Your task to perform on an android device: open app "Venmo" (install if not already installed) and enter user name: "bleedings@gmail.com" and password: "copied" Image 0: 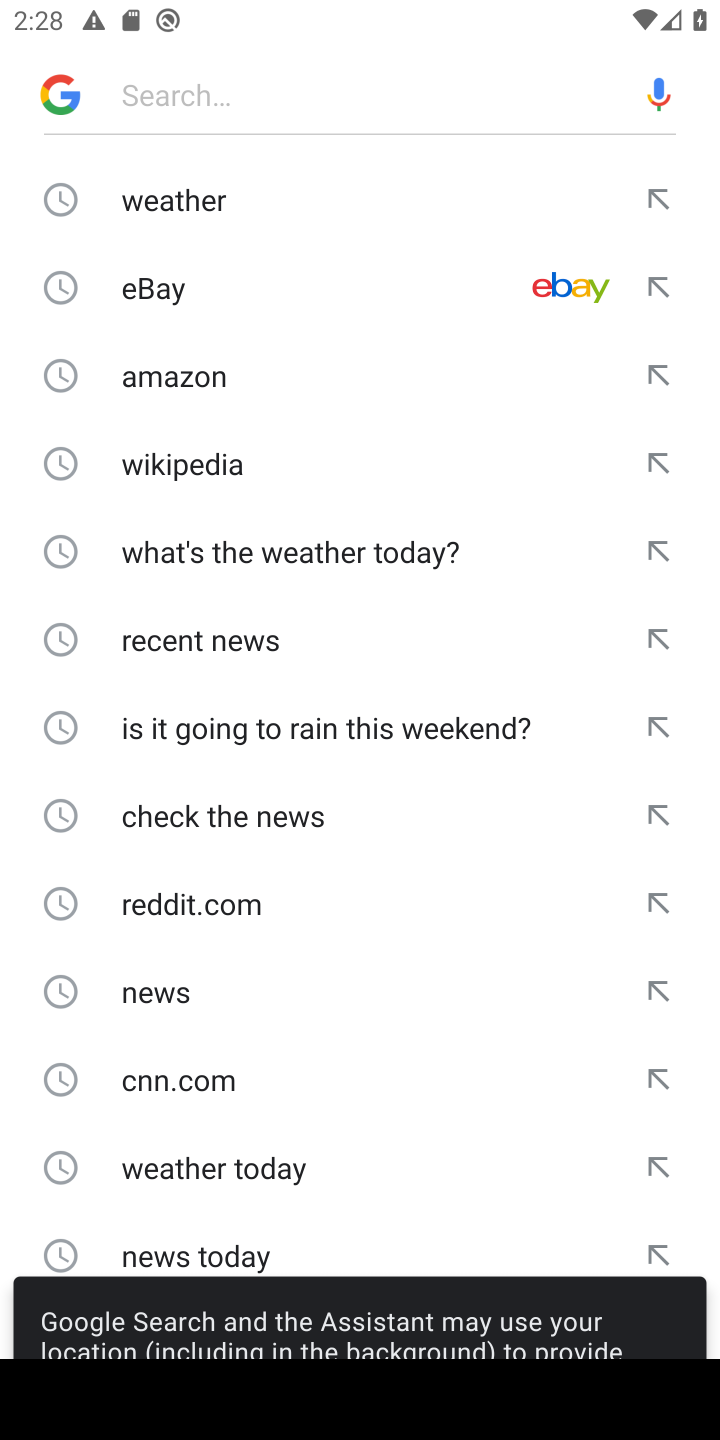
Step 0: press home button
Your task to perform on an android device: open app "Venmo" (install if not already installed) and enter user name: "bleedings@gmail.com" and password: "copied" Image 1: 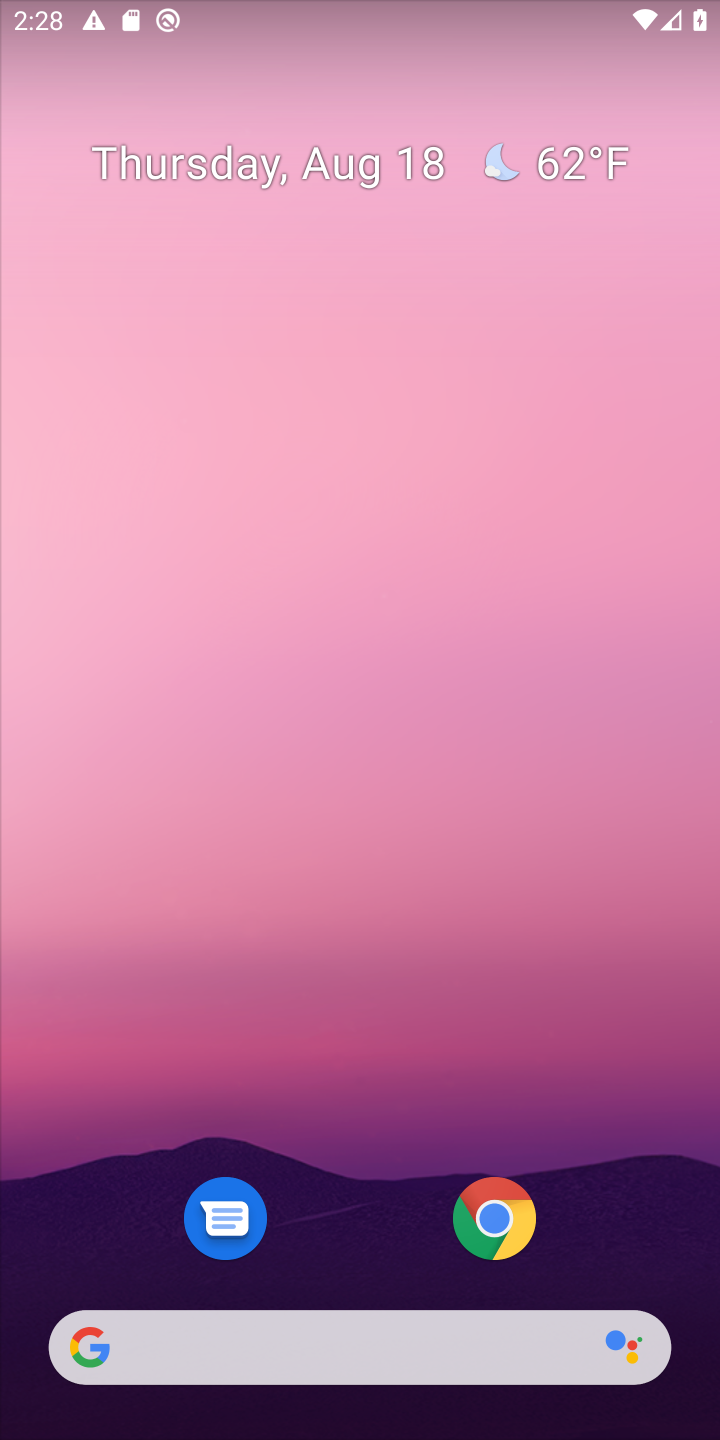
Step 1: drag from (366, 1098) to (366, 188)
Your task to perform on an android device: open app "Venmo" (install if not already installed) and enter user name: "bleedings@gmail.com" and password: "copied" Image 2: 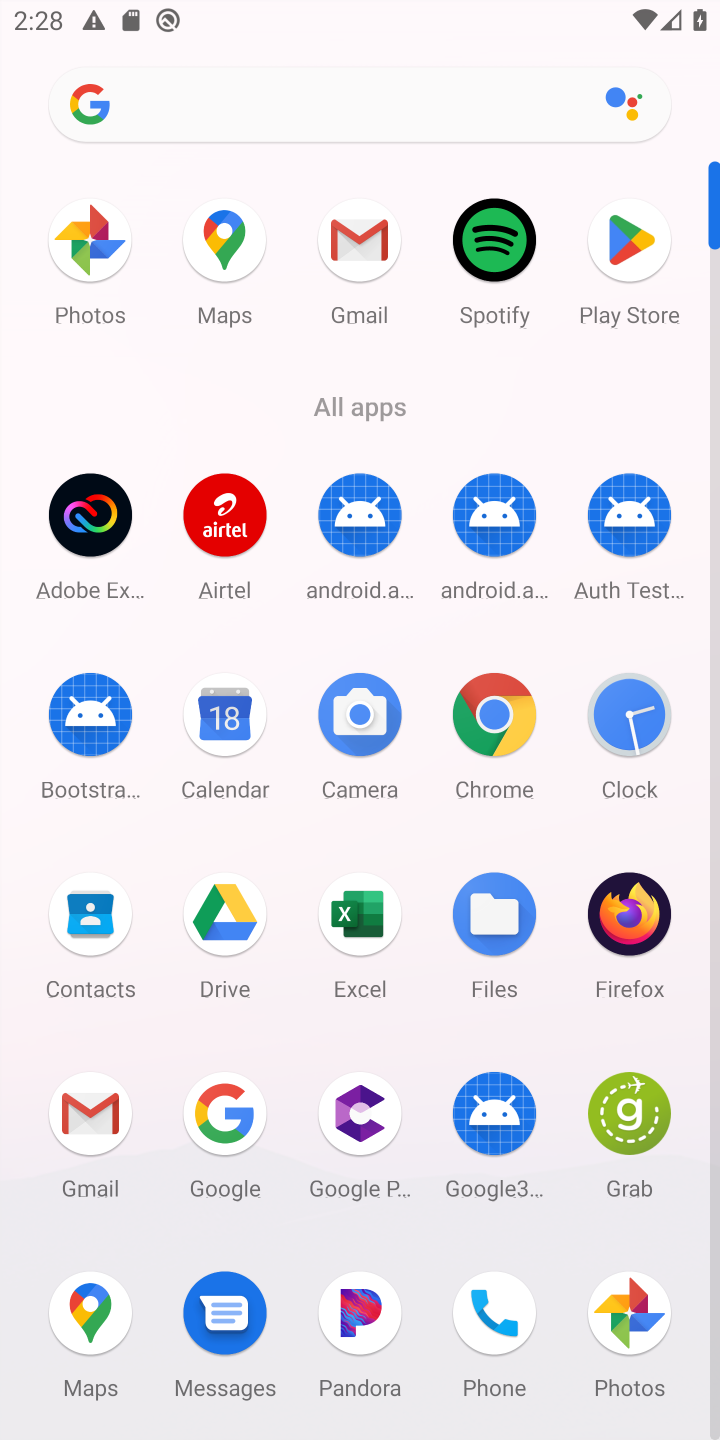
Step 2: click (631, 237)
Your task to perform on an android device: open app "Venmo" (install if not already installed) and enter user name: "bleedings@gmail.com" and password: "copied" Image 3: 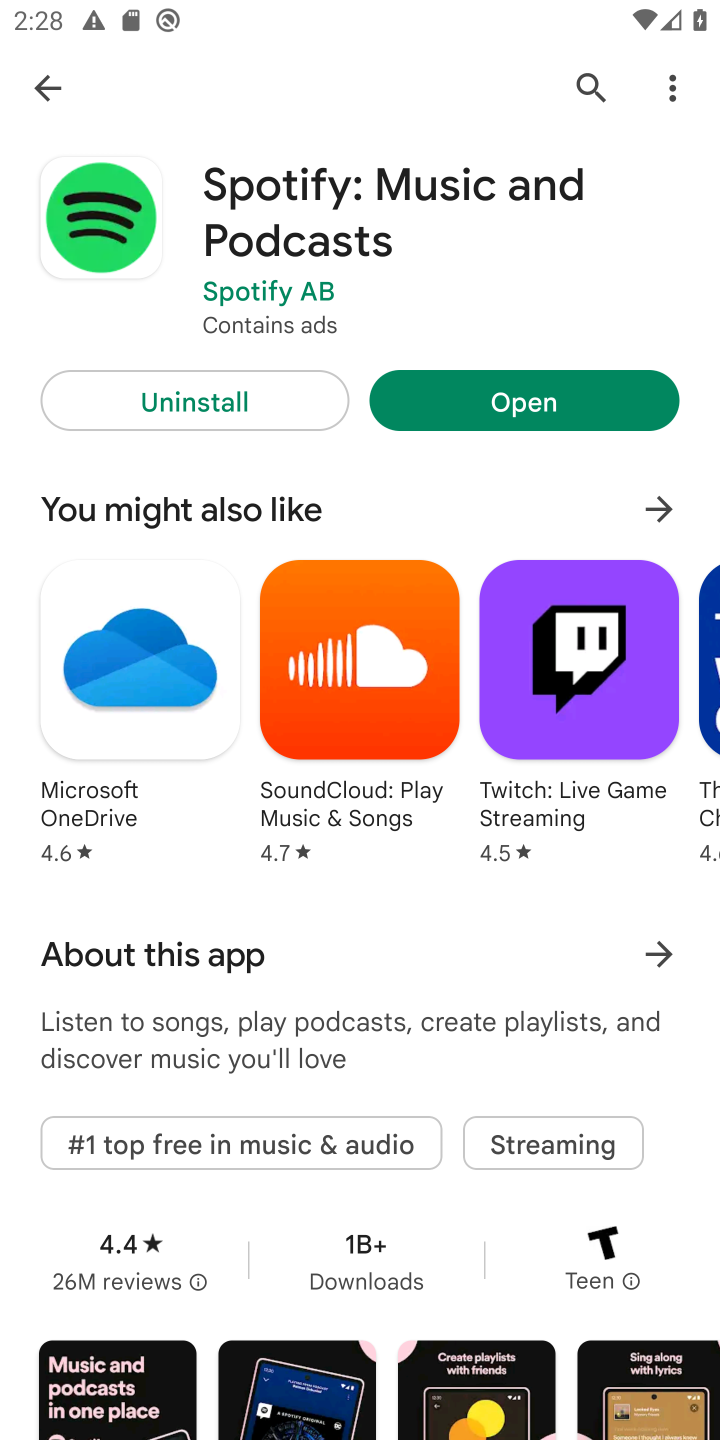
Step 3: click (606, 60)
Your task to perform on an android device: open app "Venmo" (install if not already installed) and enter user name: "bleedings@gmail.com" and password: "copied" Image 4: 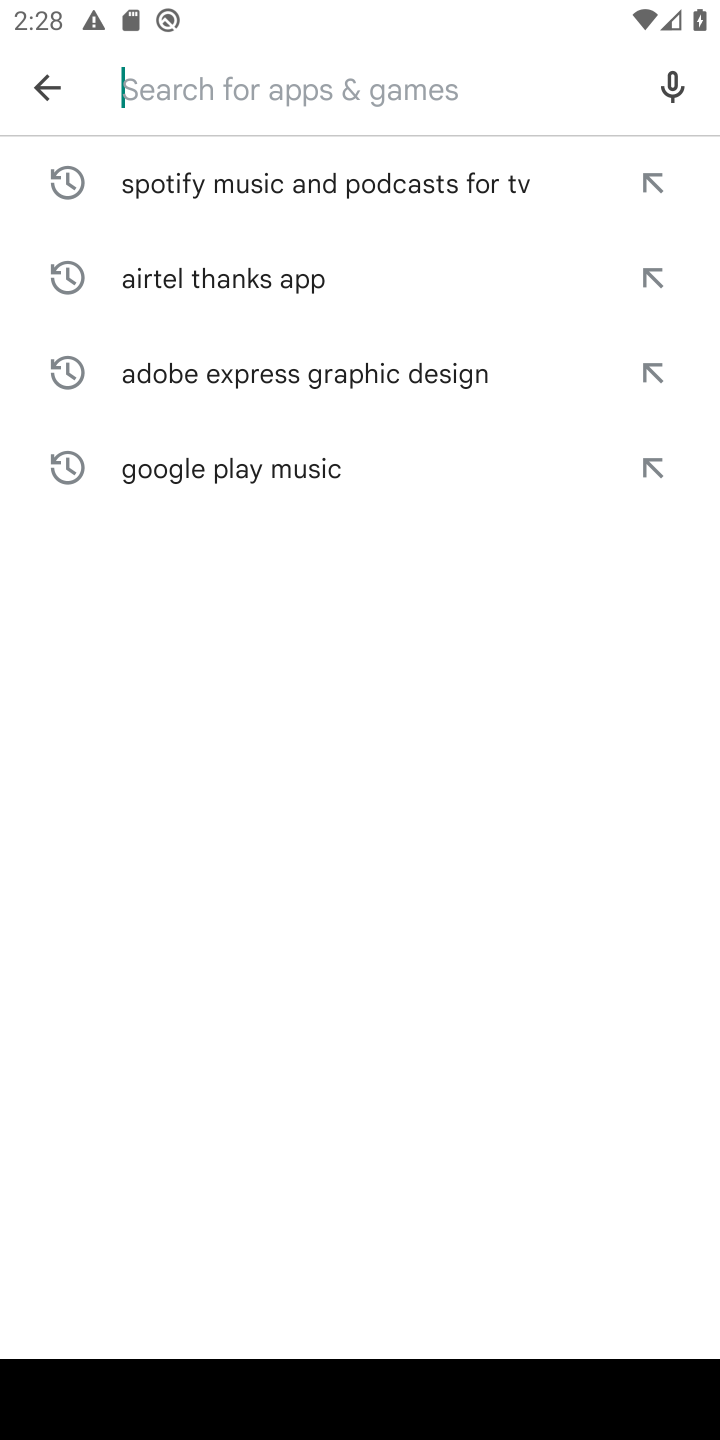
Step 4: type "Venmo"
Your task to perform on an android device: open app "Venmo" (install if not already installed) and enter user name: "bleedings@gmail.com" and password: "copied" Image 5: 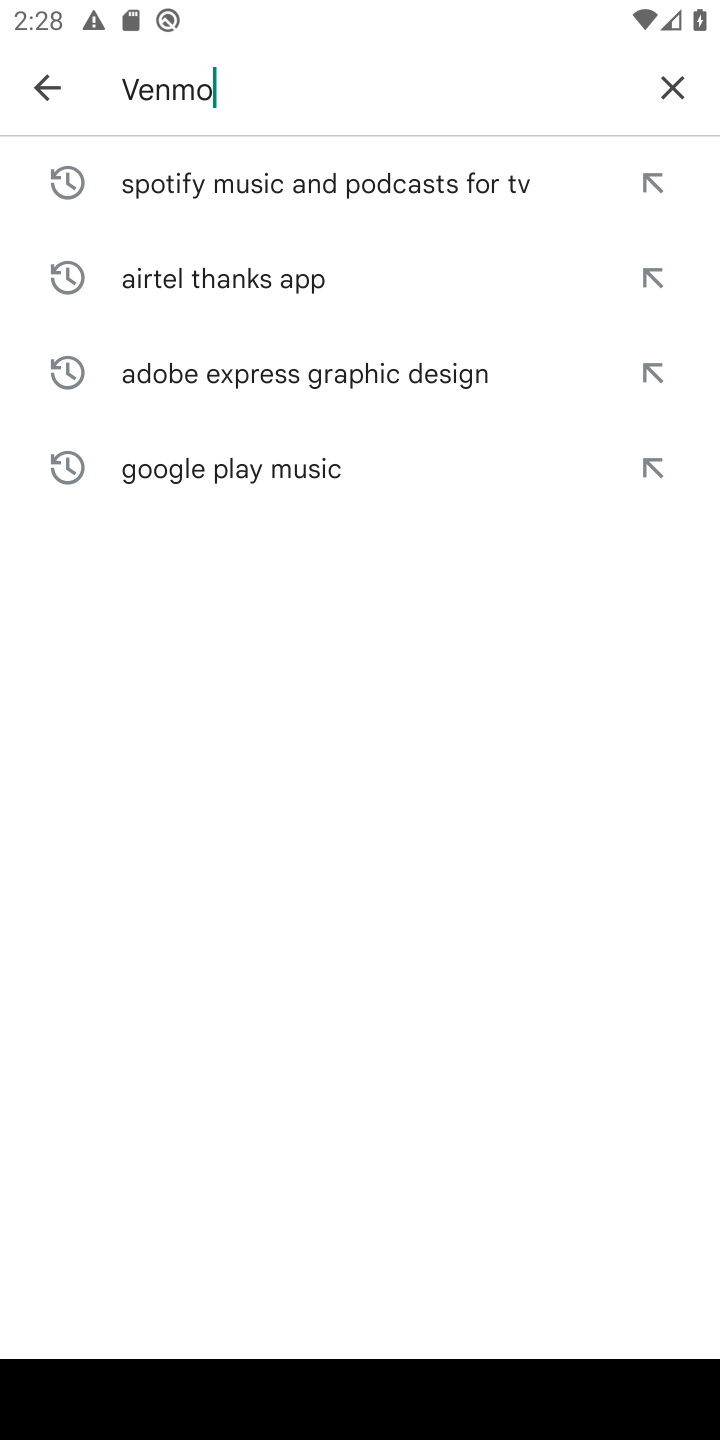
Step 5: type ""
Your task to perform on an android device: open app "Venmo" (install if not already installed) and enter user name: "bleedings@gmail.com" and password: "copied" Image 6: 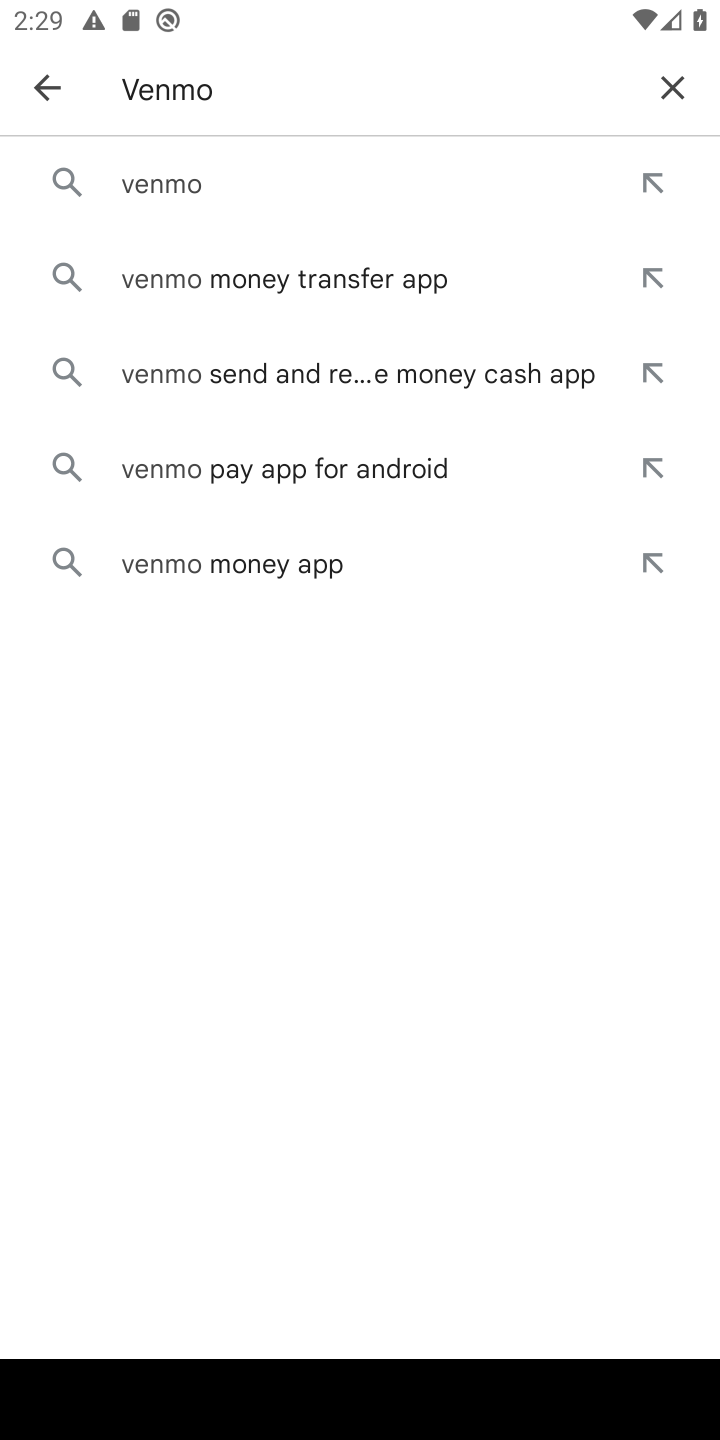
Step 6: click (208, 198)
Your task to perform on an android device: open app "Venmo" (install if not already installed) and enter user name: "bleedings@gmail.com" and password: "copied" Image 7: 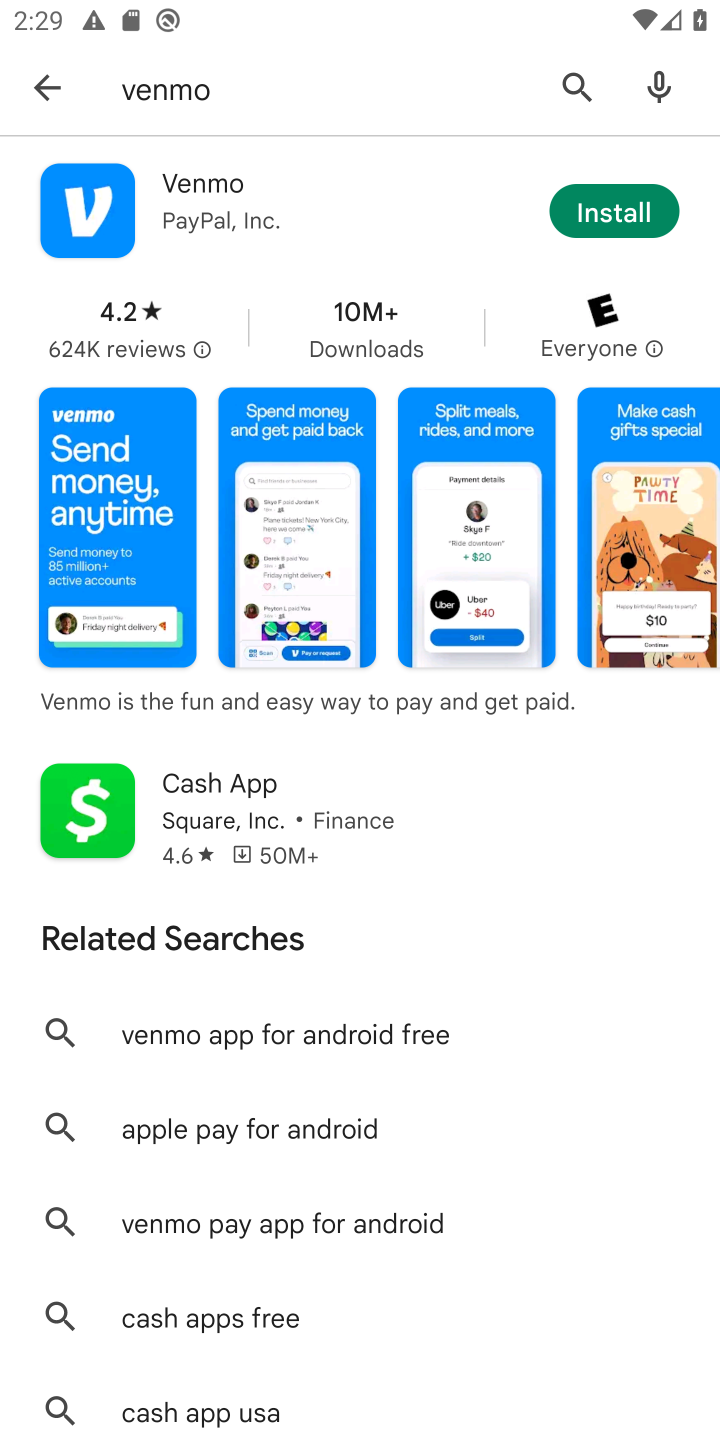
Step 7: click (621, 223)
Your task to perform on an android device: open app "Venmo" (install if not already installed) and enter user name: "bleedings@gmail.com" and password: "copied" Image 8: 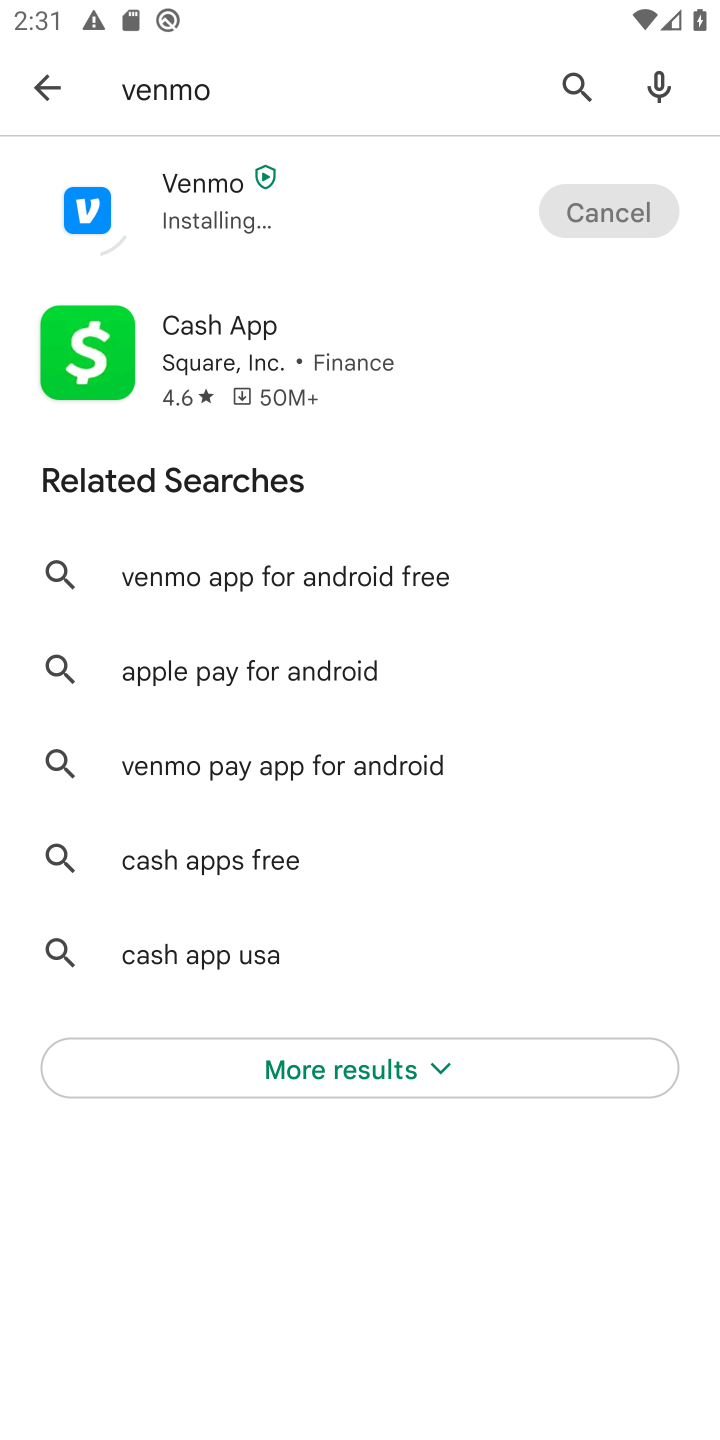
Step 8: task complete